Your task to perform on an android device: change timer sound Image 0: 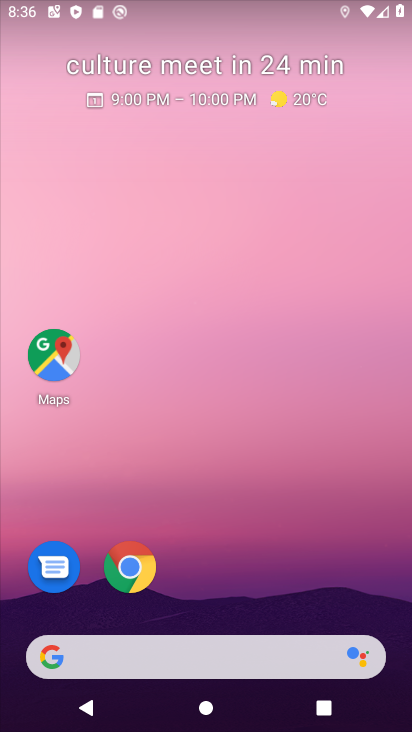
Step 0: drag from (216, 617) to (256, 55)
Your task to perform on an android device: change timer sound Image 1: 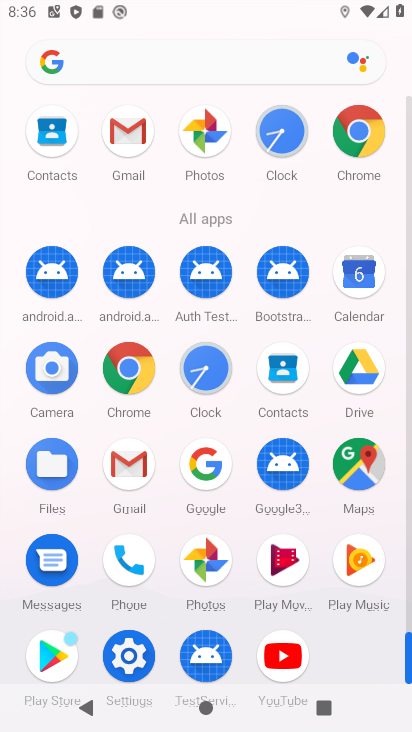
Step 1: click (295, 141)
Your task to perform on an android device: change timer sound Image 2: 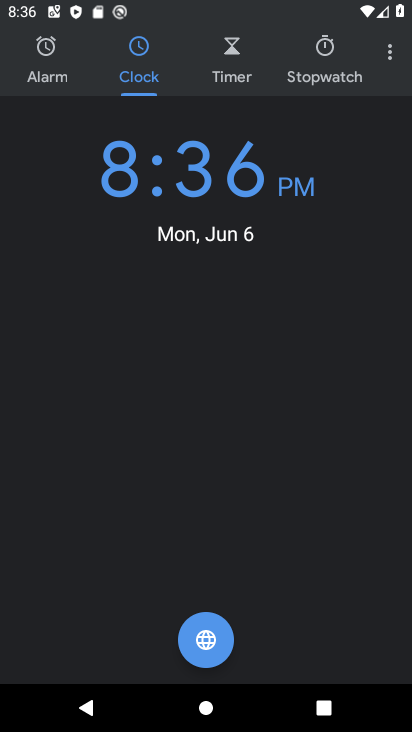
Step 2: click (396, 43)
Your task to perform on an android device: change timer sound Image 3: 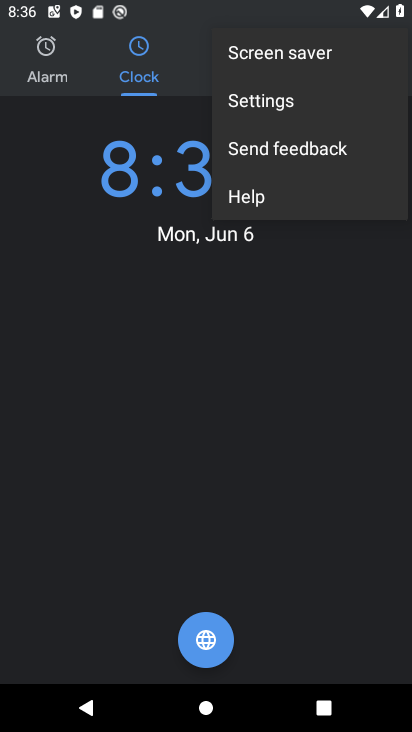
Step 3: click (278, 101)
Your task to perform on an android device: change timer sound Image 4: 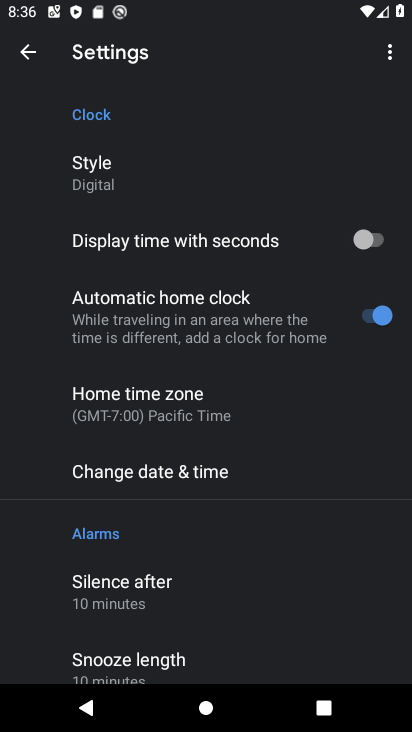
Step 4: drag from (187, 581) to (236, 163)
Your task to perform on an android device: change timer sound Image 5: 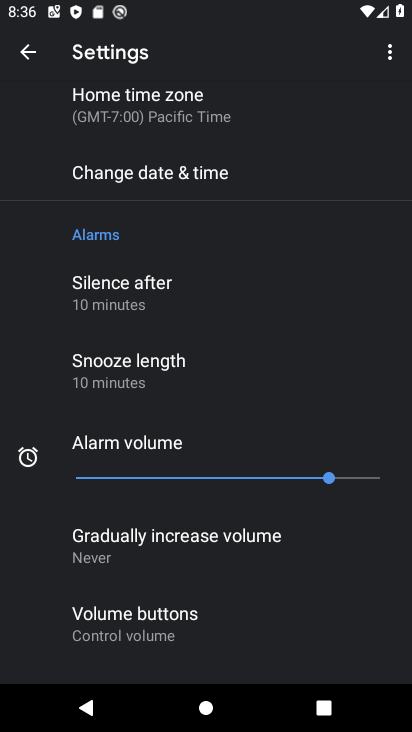
Step 5: drag from (154, 559) to (243, 109)
Your task to perform on an android device: change timer sound Image 6: 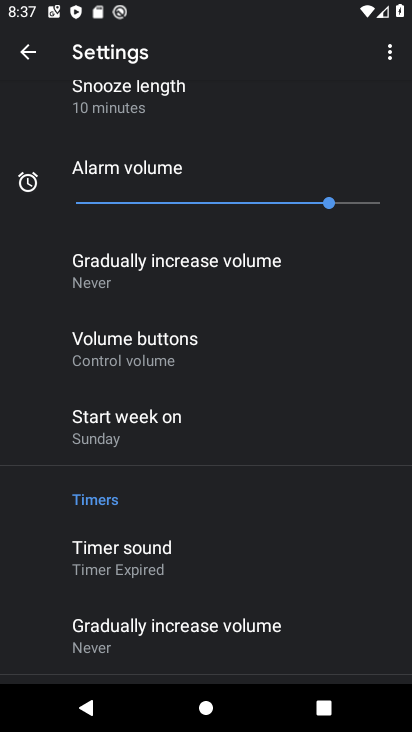
Step 6: click (129, 571)
Your task to perform on an android device: change timer sound Image 7: 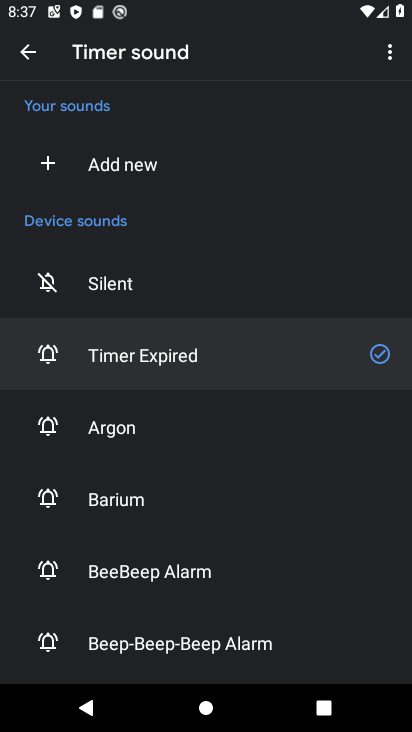
Step 7: task complete